Your task to perform on an android device: Open calendar and show me the third week of next month Image 0: 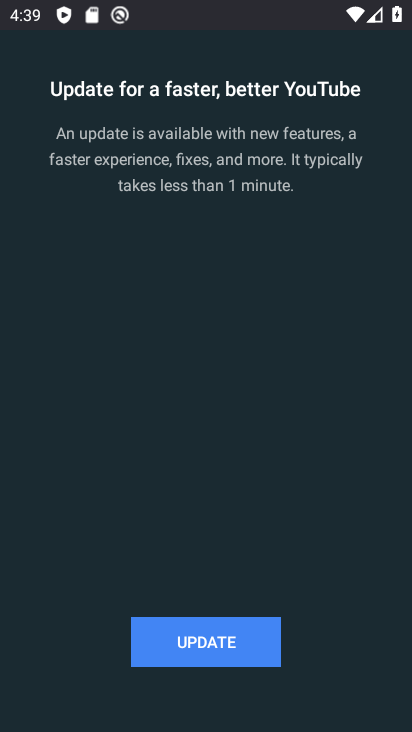
Step 0: press home button
Your task to perform on an android device: Open calendar and show me the third week of next month Image 1: 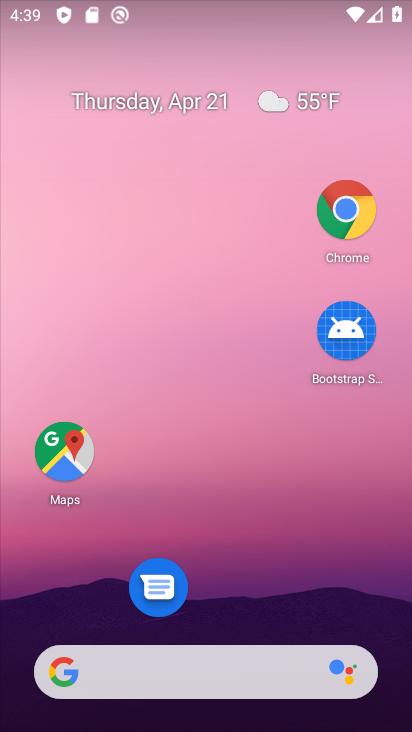
Step 1: drag from (341, 245) to (341, 81)
Your task to perform on an android device: Open calendar and show me the third week of next month Image 2: 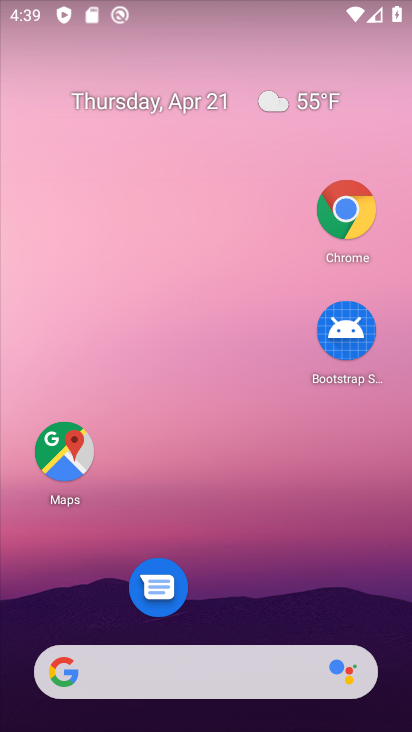
Step 2: drag from (265, 548) to (291, 139)
Your task to perform on an android device: Open calendar and show me the third week of next month Image 3: 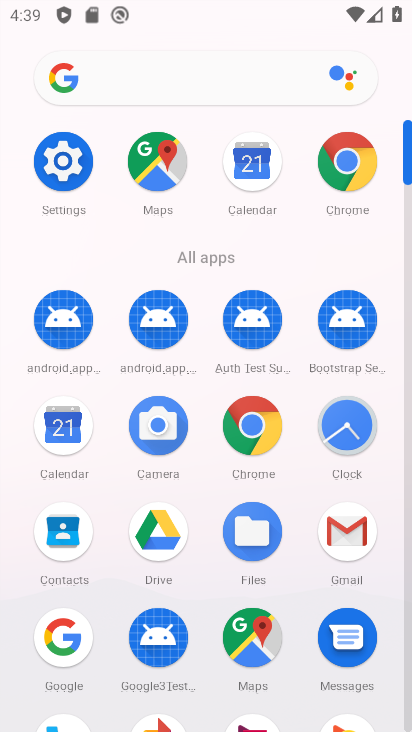
Step 3: click (67, 439)
Your task to perform on an android device: Open calendar and show me the third week of next month Image 4: 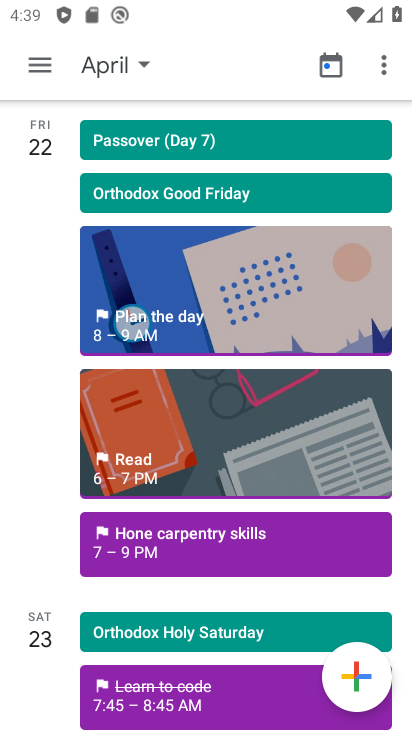
Step 4: click (145, 64)
Your task to perform on an android device: Open calendar and show me the third week of next month Image 5: 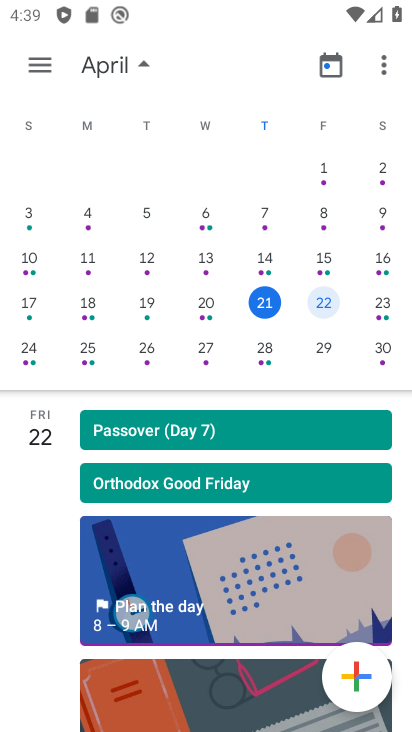
Step 5: drag from (320, 220) to (14, 216)
Your task to perform on an android device: Open calendar and show me the third week of next month Image 6: 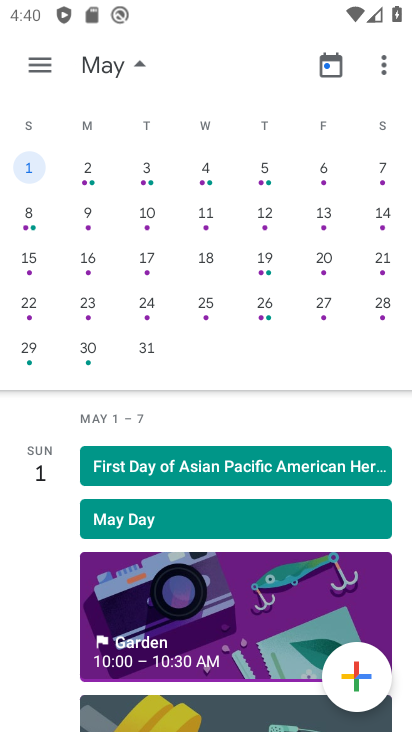
Step 6: click (150, 257)
Your task to perform on an android device: Open calendar and show me the third week of next month Image 7: 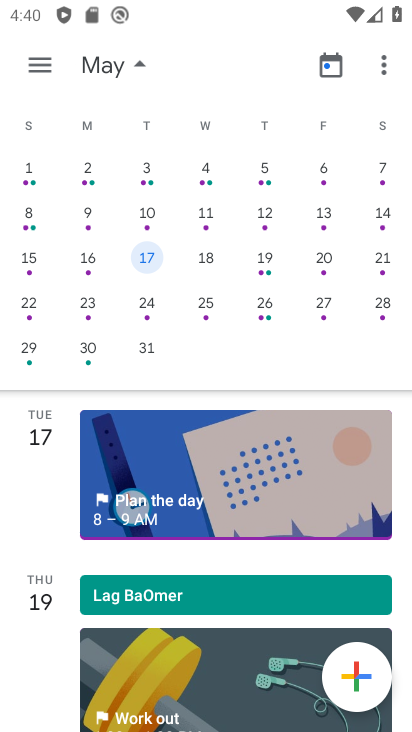
Step 7: task complete